Your task to perform on an android device: toggle wifi Image 0: 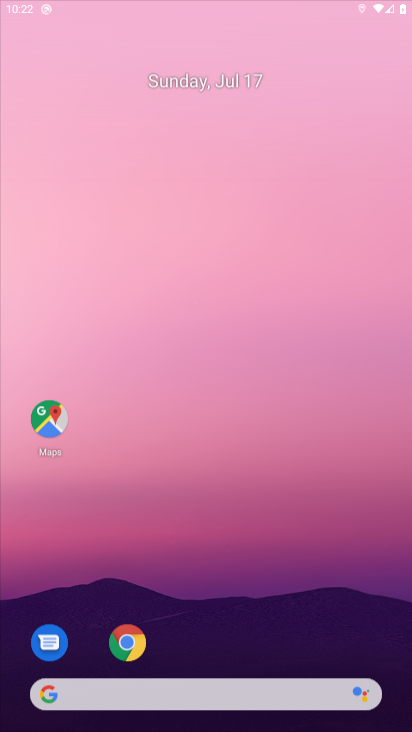
Step 0: press home button
Your task to perform on an android device: toggle wifi Image 1: 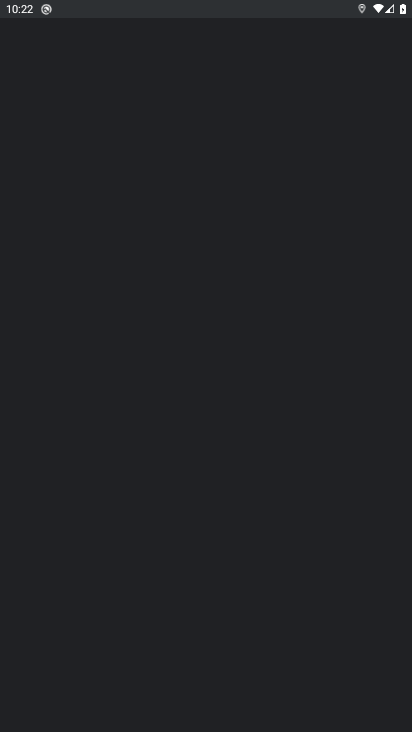
Step 1: drag from (271, 159) to (280, 72)
Your task to perform on an android device: toggle wifi Image 2: 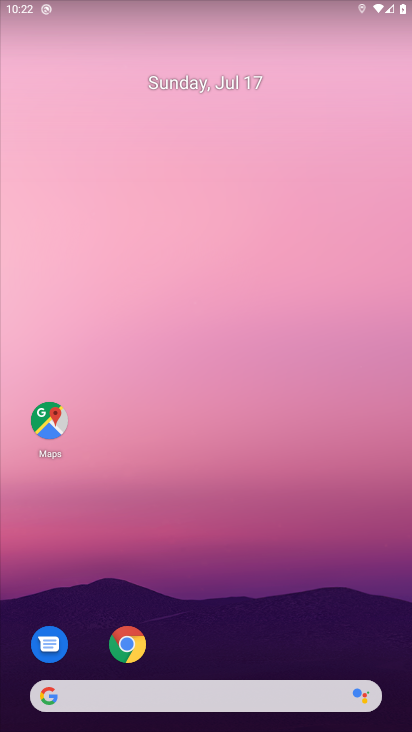
Step 2: drag from (248, 665) to (244, 139)
Your task to perform on an android device: toggle wifi Image 3: 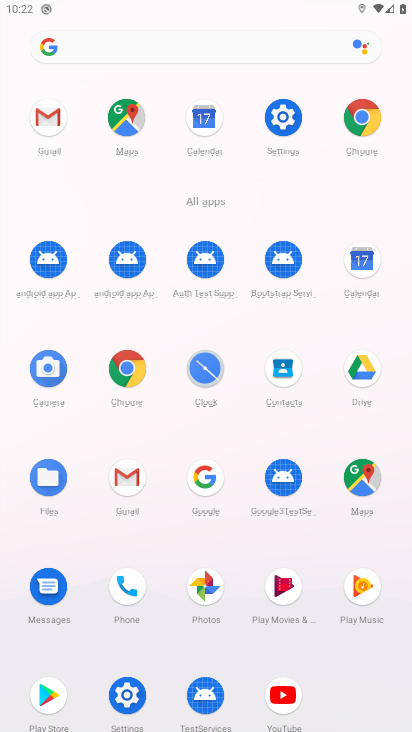
Step 3: click (276, 115)
Your task to perform on an android device: toggle wifi Image 4: 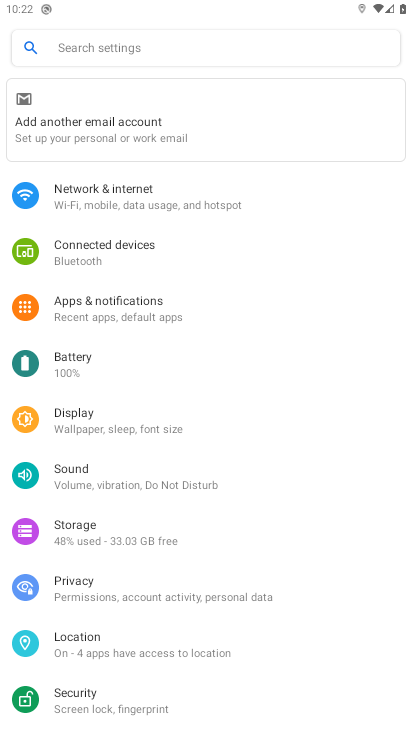
Step 4: click (139, 182)
Your task to perform on an android device: toggle wifi Image 5: 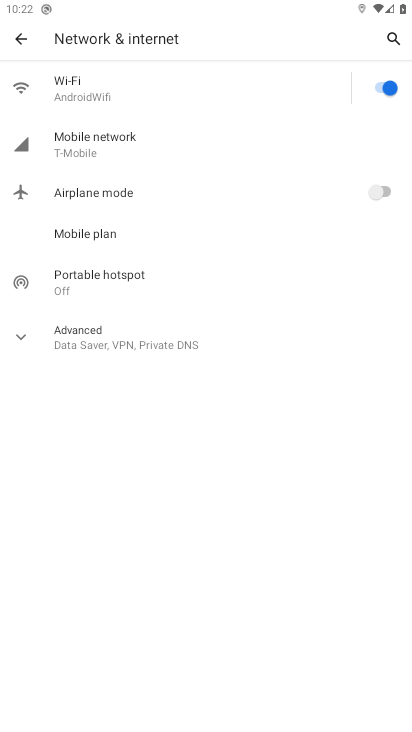
Step 5: click (389, 90)
Your task to perform on an android device: toggle wifi Image 6: 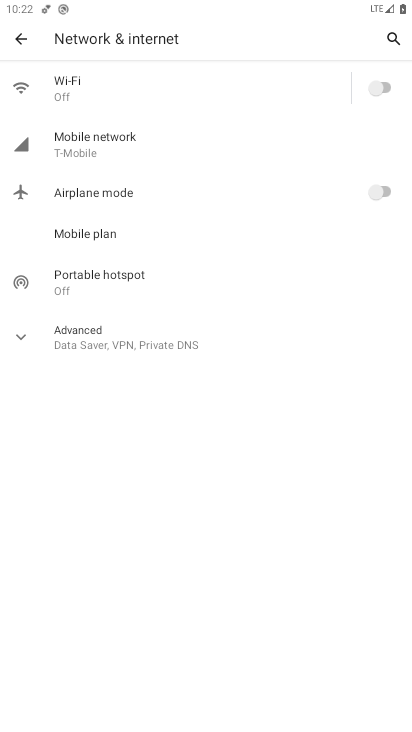
Step 6: task complete